Your task to perform on an android device: toggle show notifications on the lock screen Image 0: 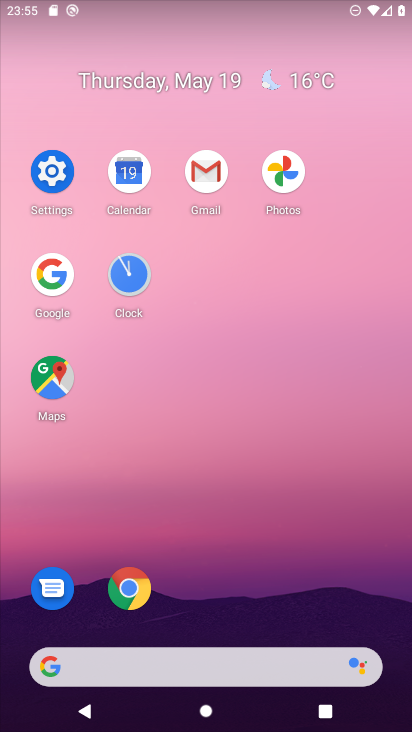
Step 0: click (48, 176)
Your task to perform on an android device: toggle show notifications on the lock screen Image 1: 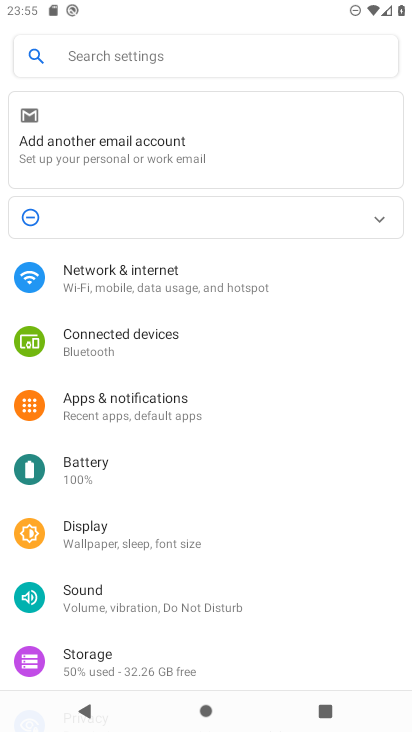
Step 1: click (134, 413)
Your task to perform on an android device: toggle show notifications on the lock screen Image 2: 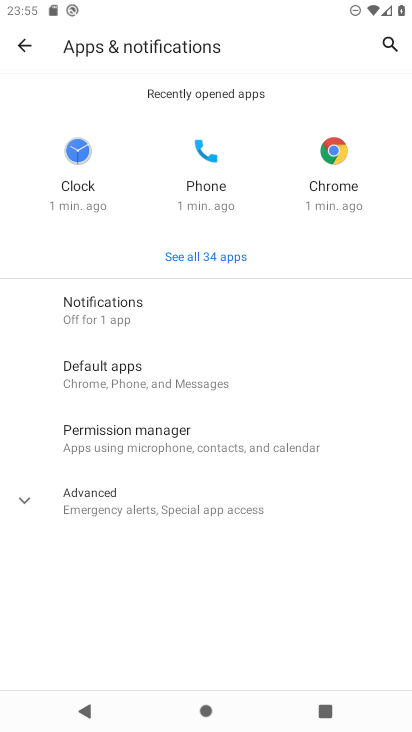
Step 2: click (97, 308)
Your task to perform on an android device: toggle show notifications on the lock screen Image 3: 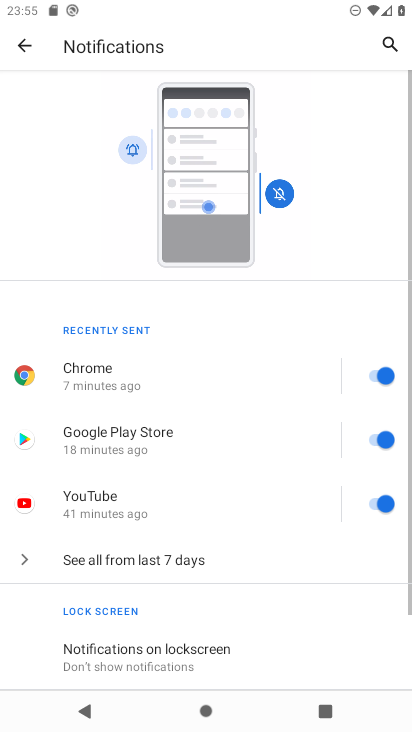
Step 3: drag from (194, 634) to (183, 258)
Your task to perform on an android device: toggle show notifications on the lock screen Image 4: 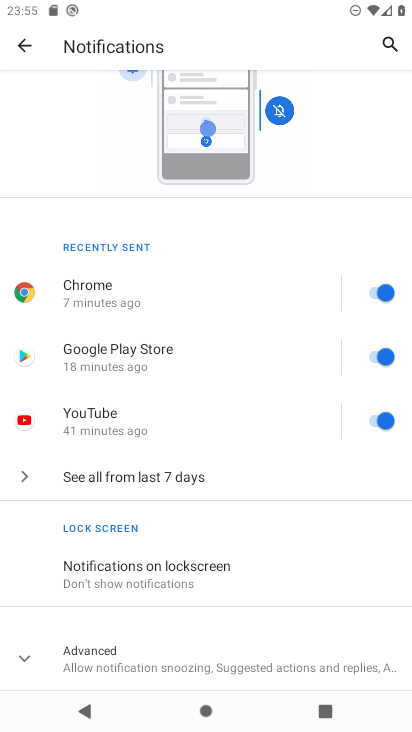
Step 4: click (164, 541)
Your task to perform on an android device: toggle show notifications on the lock screen Image 5: 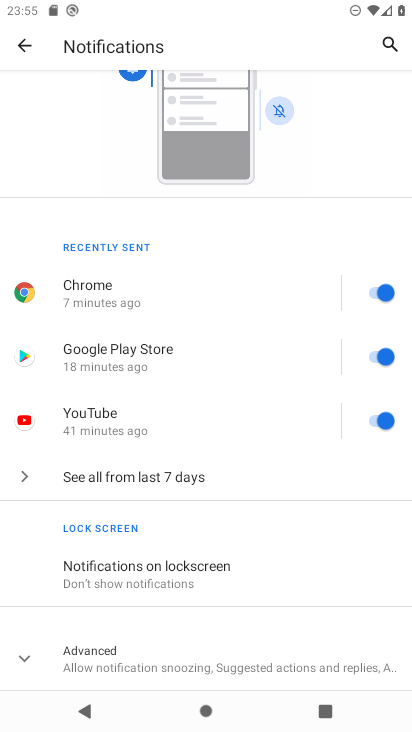
Step 5: click (167, 560)
Your task to perform on an android device: toggle show notifications on the lock screen Image 6: 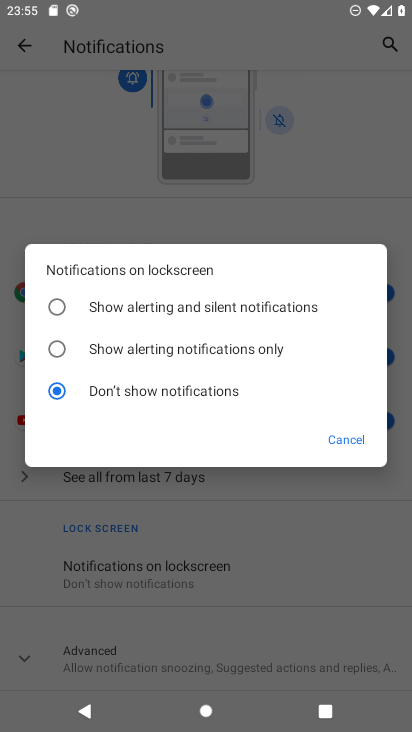
Step 6: click (195, 304)
Your task to perform on an android device: toggle show notifications on the lock screen Image 7: 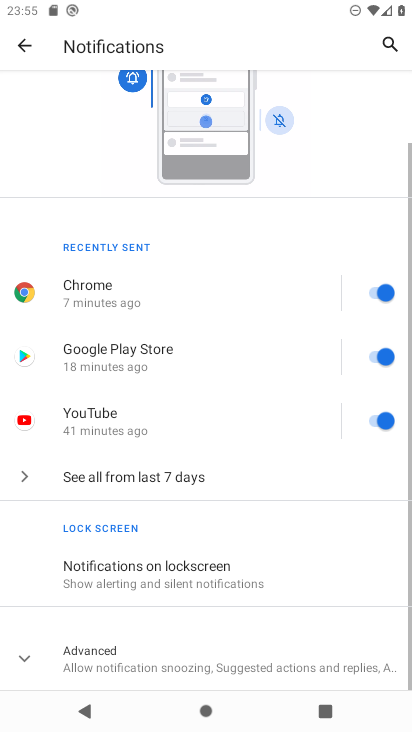
Step 7: task complete